Your task to perform on an android device: Open Google Chrome and click the shortcut for Amazon.com Image 0: 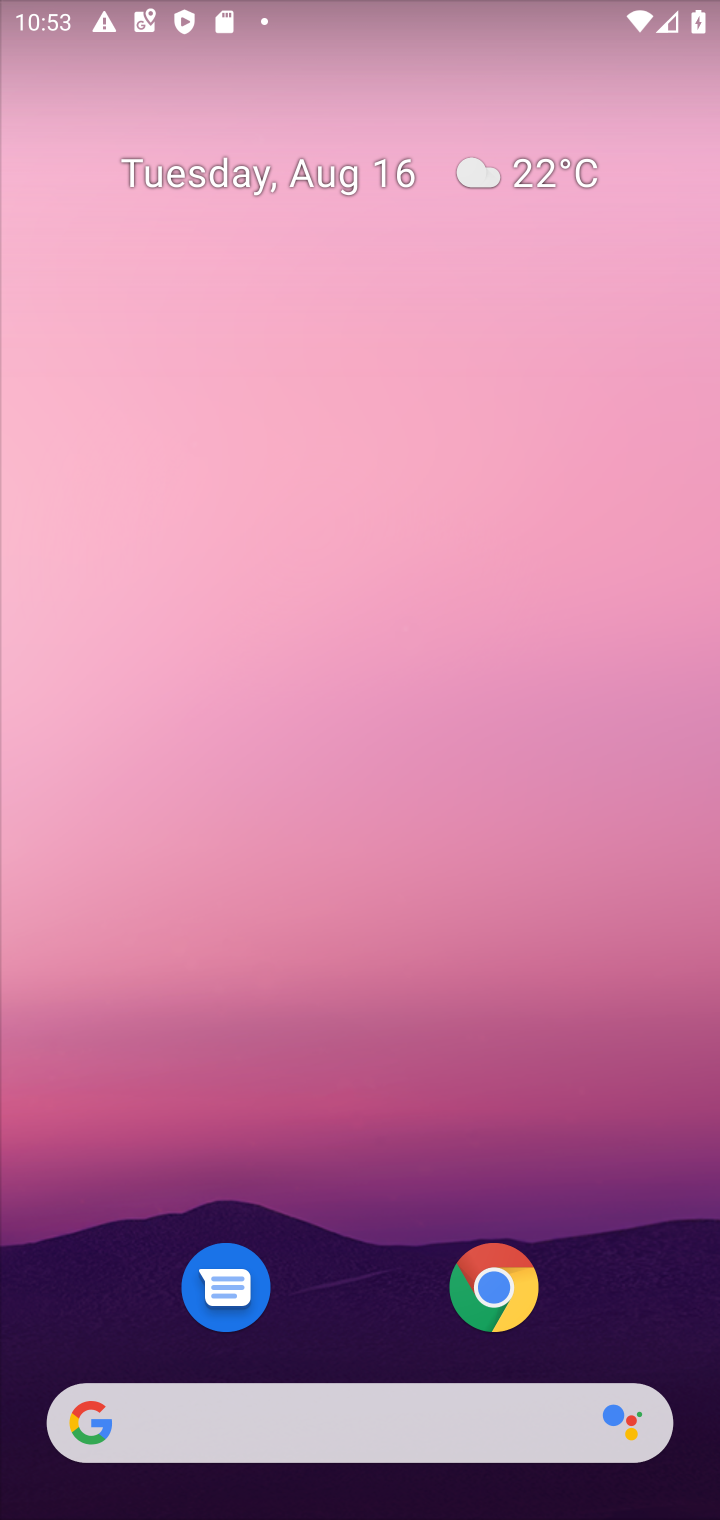
Step 0: click (497, 1295)
Your task to perform on an android device: Open Google Chrome and click the shortcut for Amazon.com Image 1: 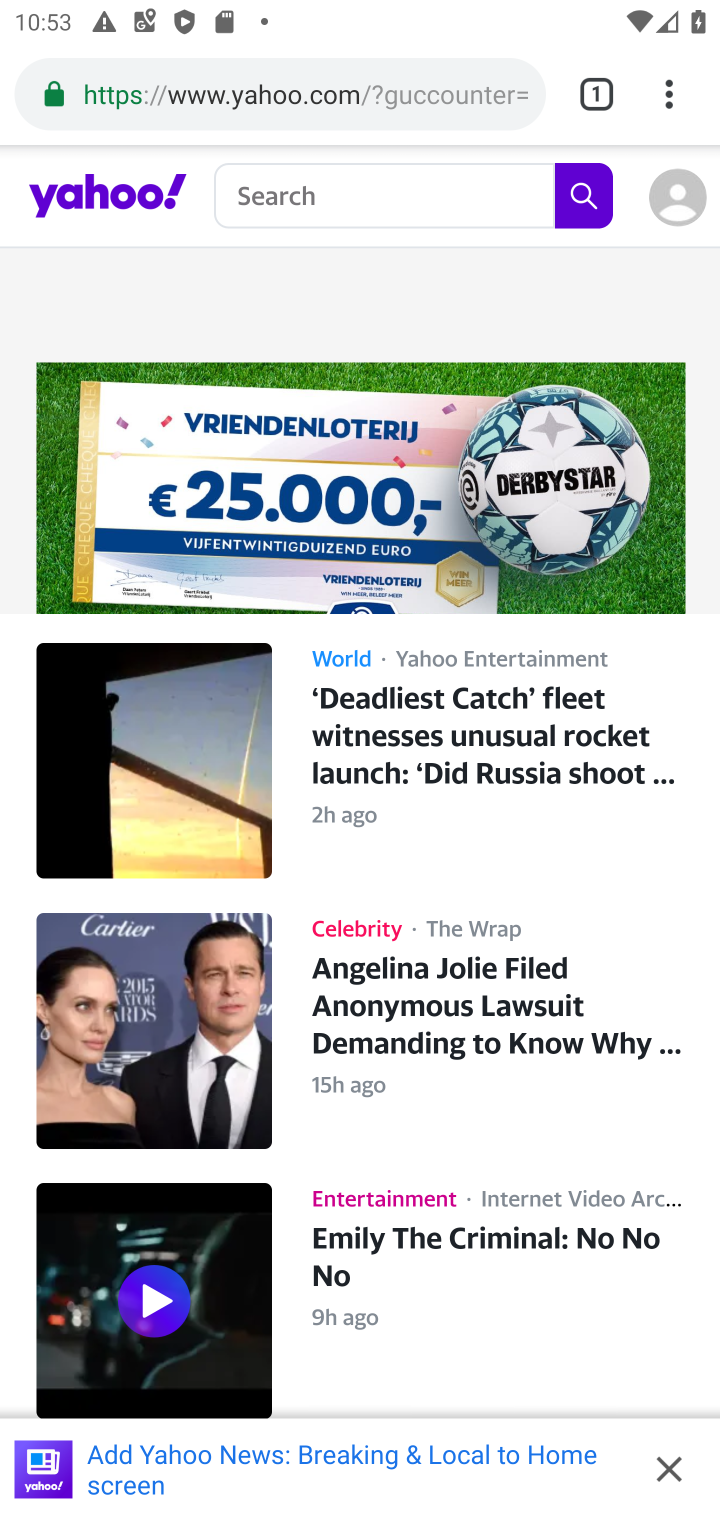
Step 1: click (661, 106)
Your task to perform on an android device: Open Google Chrome and click the shortcut for Amazon.com Image 2: 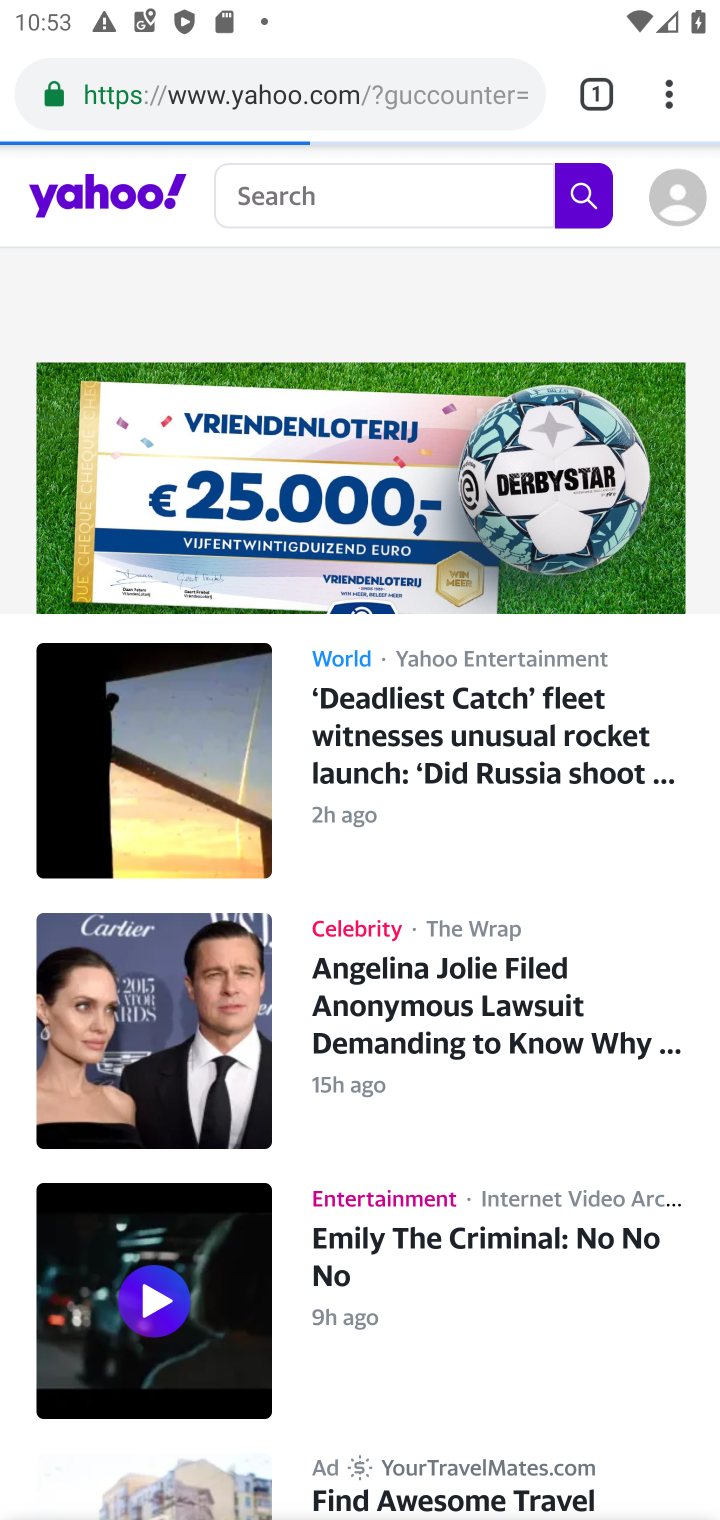
Step 2: click (656, 107)
Your task to perform on an android device: Open Google Chrome and click the shortcut for Amazon.com Image 3: 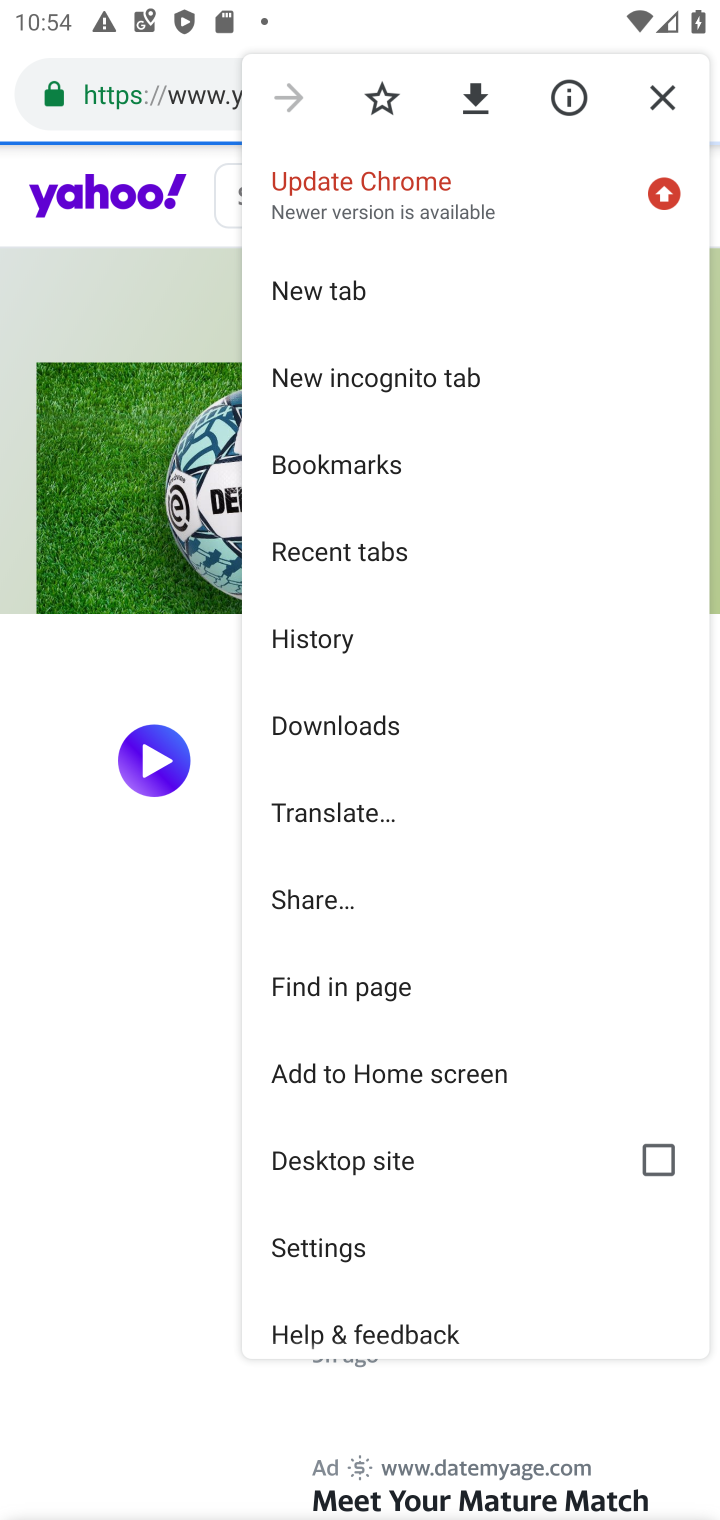
Step 3: click (334, 282)
Your task to perform on an android device: Open Google Chrome and click the shortcut for Amazon.com Image 4: 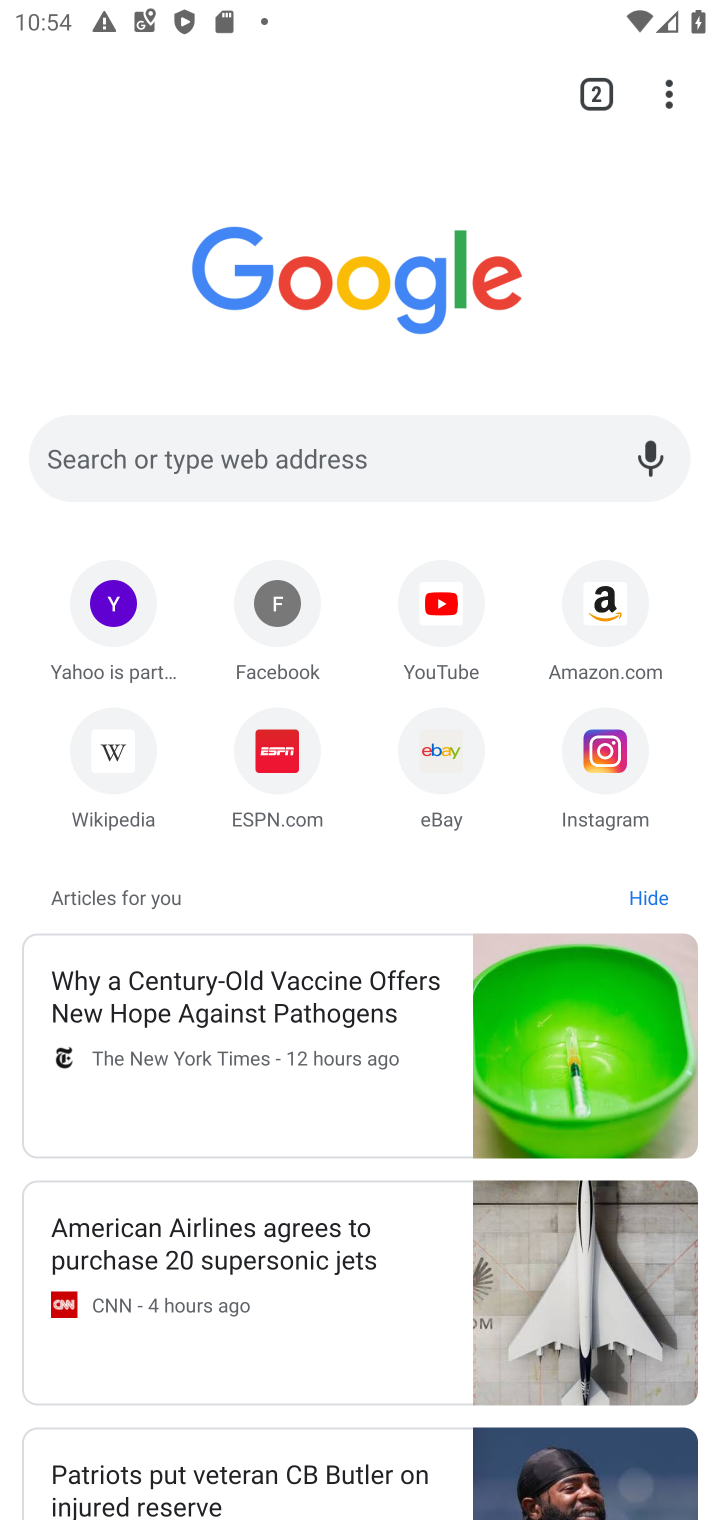
Step 4: click (604, 605)
Your task to perform on an android device: Open Google Chrome and click the shortcut for Amazon.com Image 5: 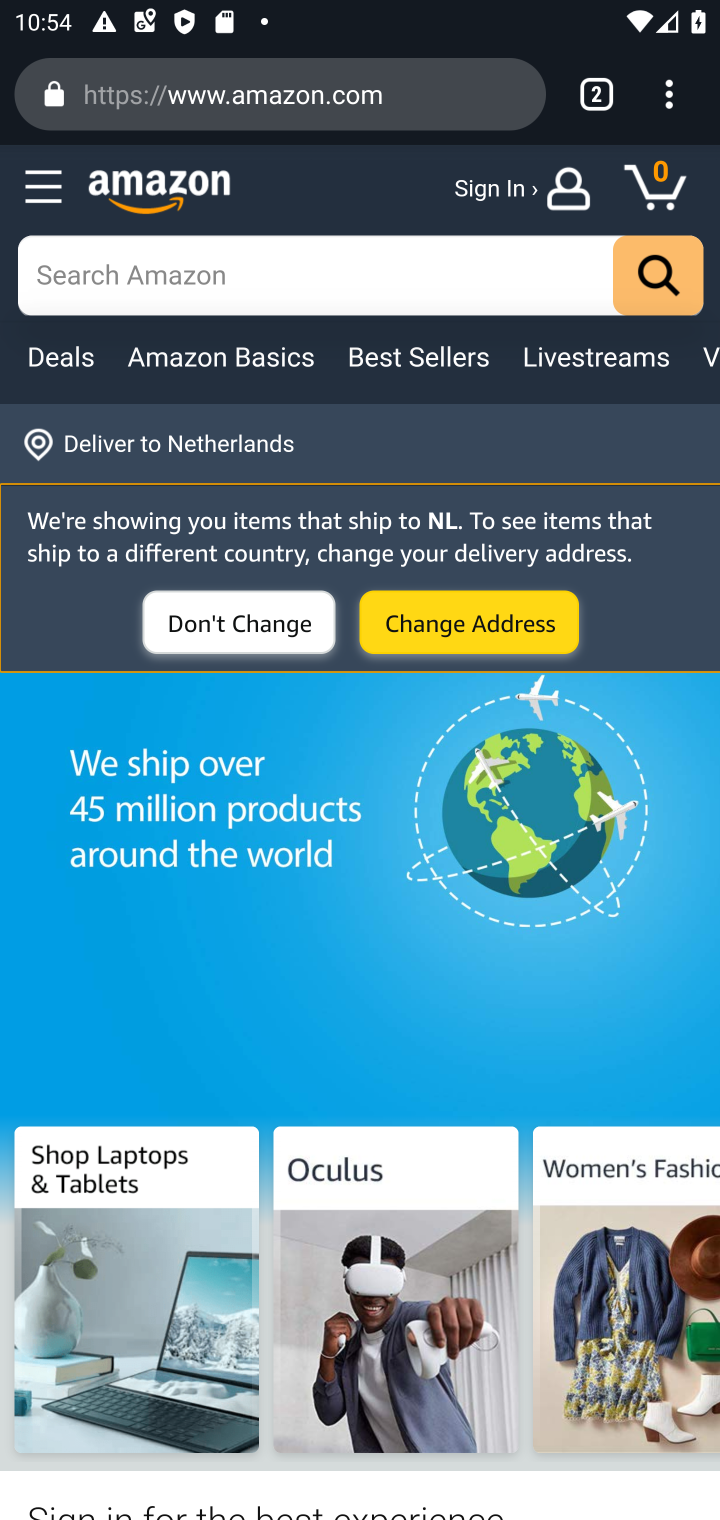
Step 5: task complete